Your task to perform on an android device: turn off notifications in google photos Image 0: 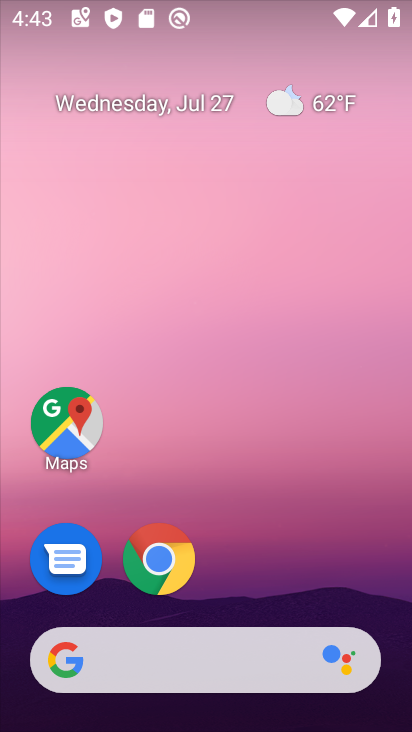
Step 0: drag from (291, 515) to (323, 19)
Your task to perform on an android device: turn off notifications in google photos Image 1: 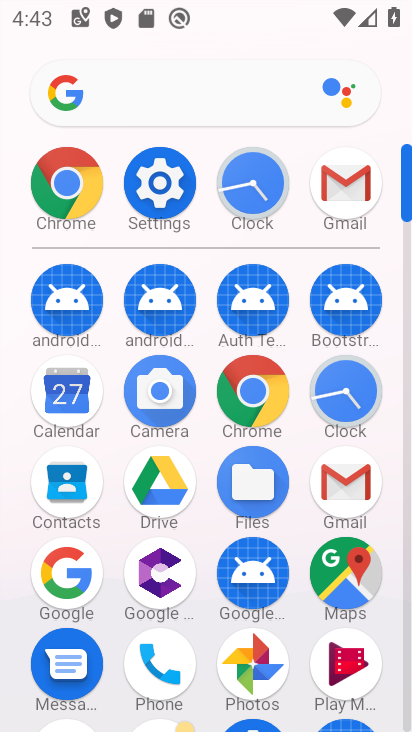
Step 1: click (252, 655)
Your task to perform on an android device: turn off notifications in google photos Image 2: 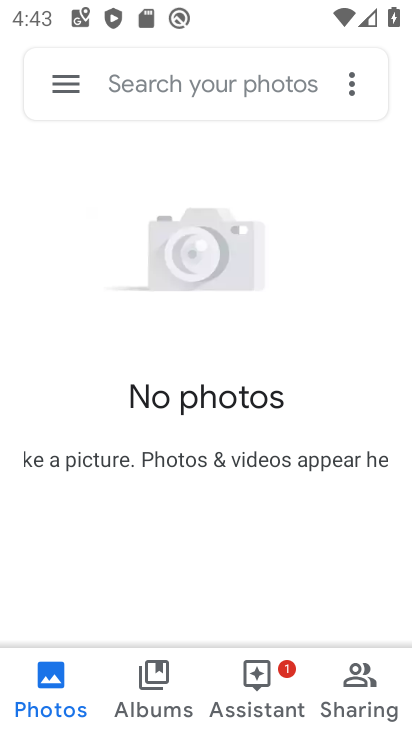
Step 2: click (67, 77)
Your task to perform on an android device: turn off notifications in google photos Image 3: 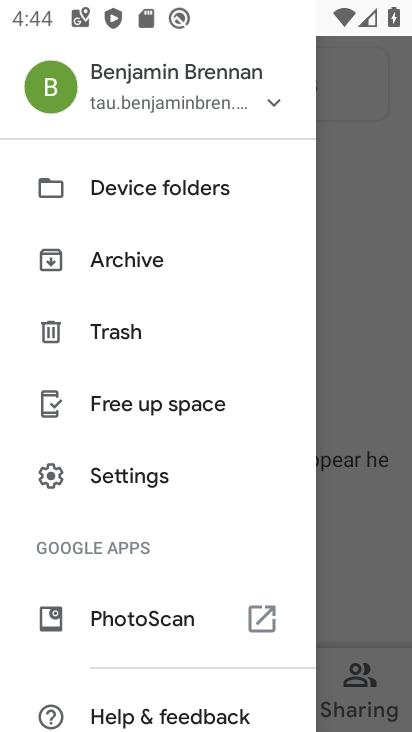
Step 3: click (153, 480)
Your task to perform on an android device: turn off notifications in google photos Image 4: 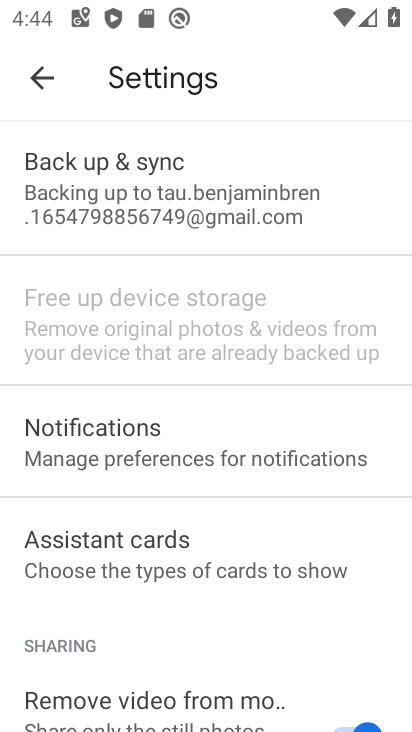
Step 4: click (154, 453)
Your task to perform on an android device: turn off notifications in google photos Image 5: 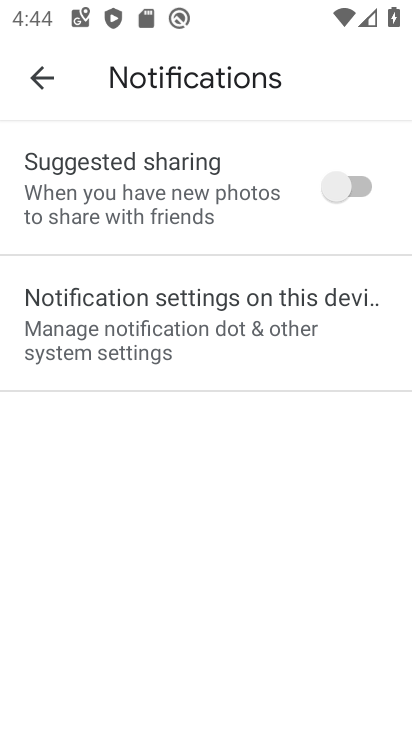
Step 5: click (174, 295)
Your task to perform on an android device: turn off notifications in google photos Image 6: 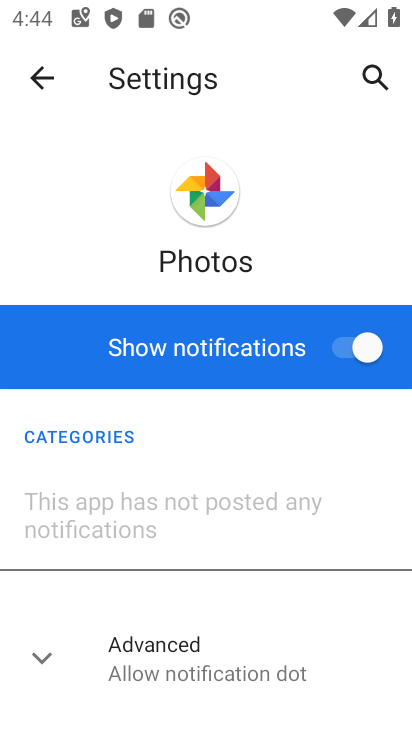
Step 6: drag from (232, 653) to (287, 160)
Your task to perform on an android device: turn off notifications in google photos Image 7: 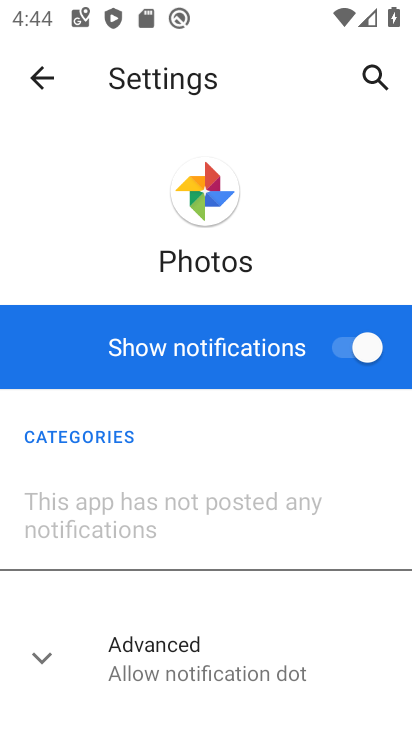
Step 7: click (370, 346)
Your task to perform on an android device: turn off notifications in google photos Image 8: 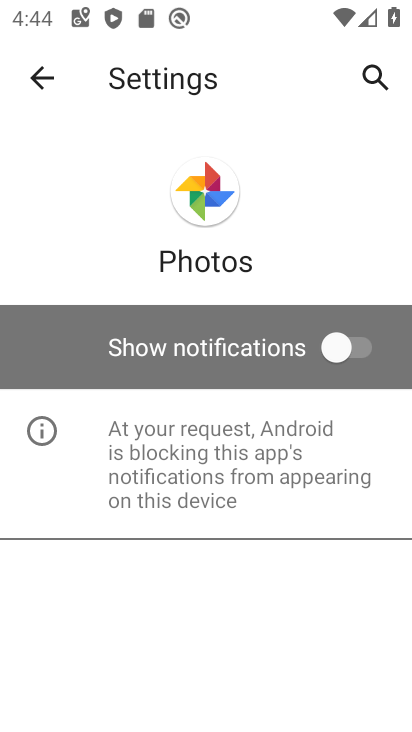
Step 8: task complete